Your task to perform on an android device: turn on the 12-hour format for clock Image 0: 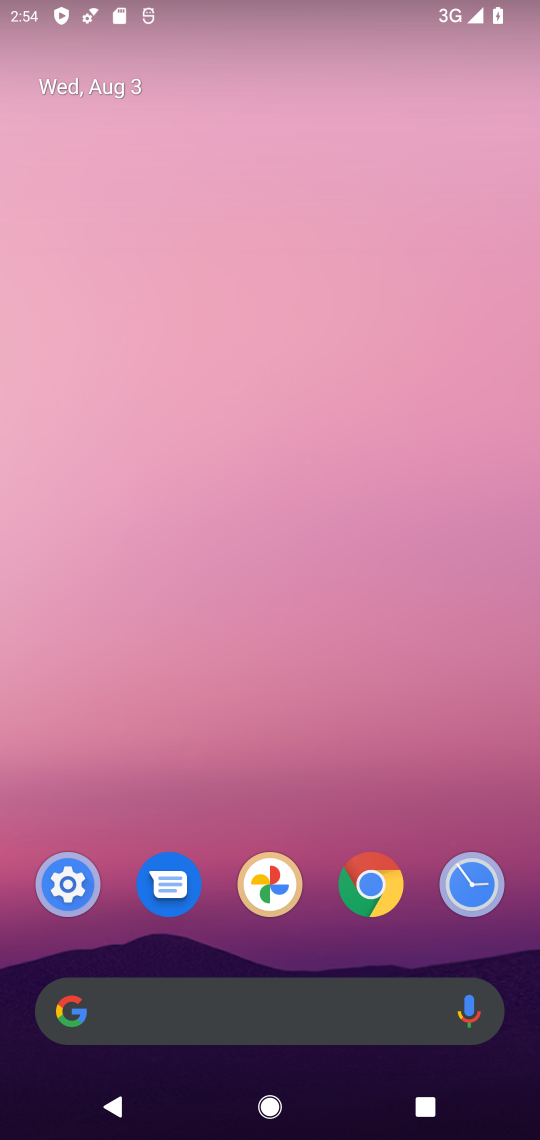
Step 0: click (474, 912)
Your task to perform on an android device: turn on the 12-hour format for clock Image 1: 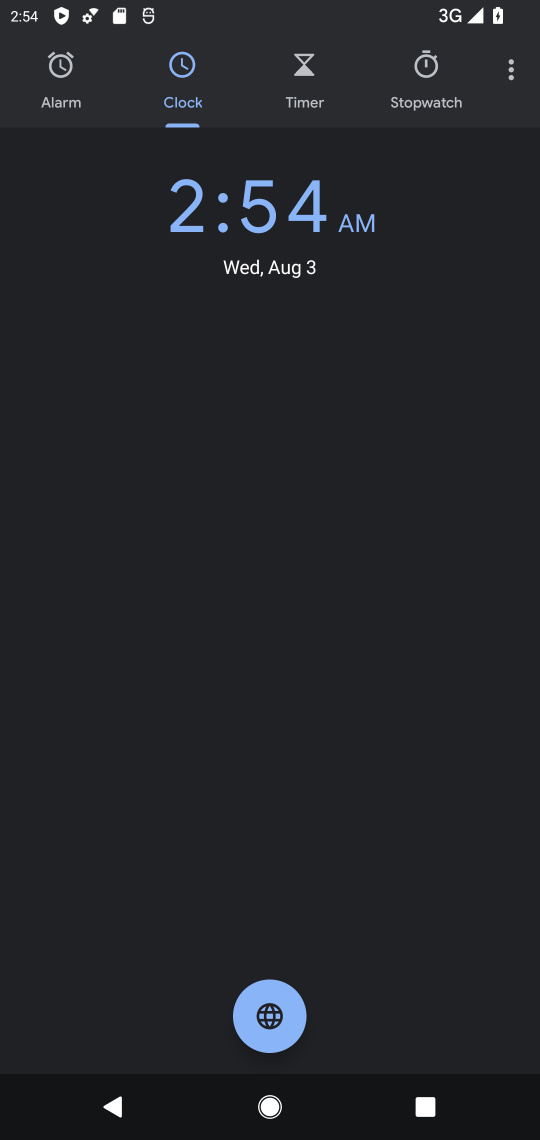
Step 1: click (502, 80)
Your task to perform on an android device: turn on the 12-hour format for clock Image 2: 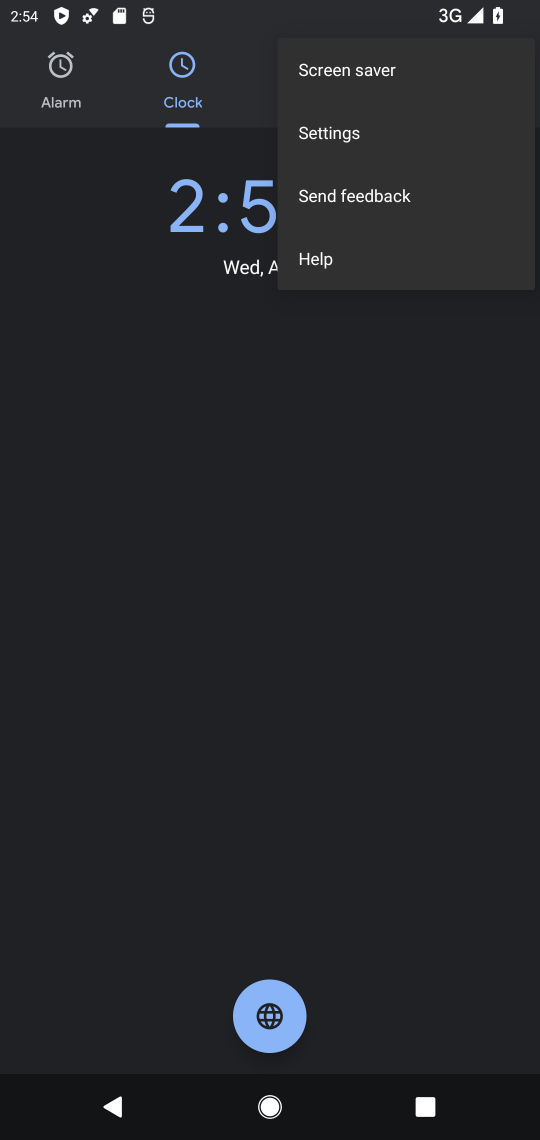
Step 2: click (353, 128)
Your task to perform on an android device: turn on the 12-hour format for clock Image 3: 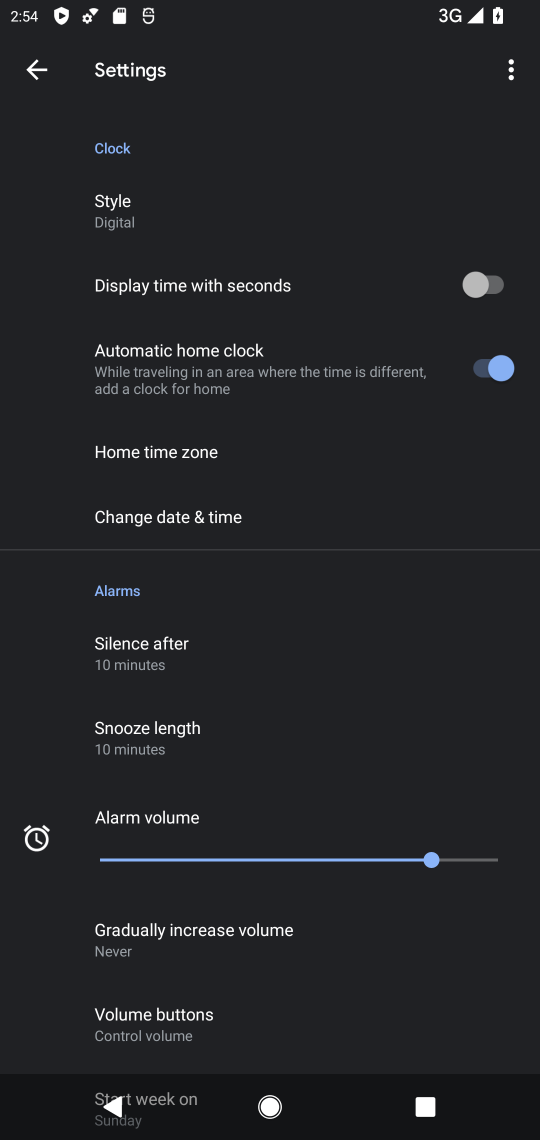
Step 3: click (186, 531)
Your task to perform on an android device: turn on the 12-hour format for clock Image 4: 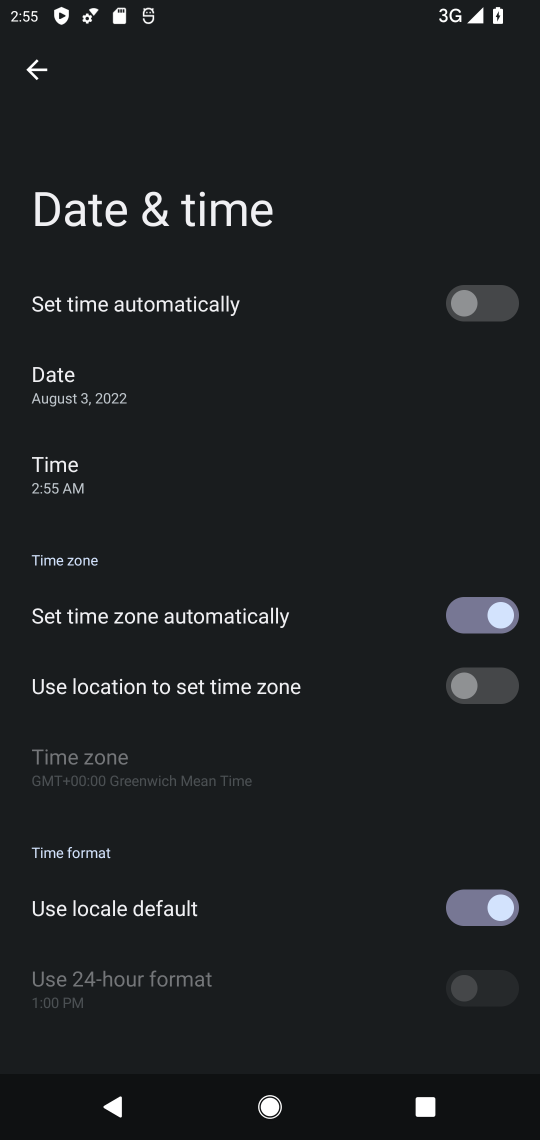
Step 4: click (535, 920)
Your task to perform on an android device: turn on the 12-hour format for clock Image 5: 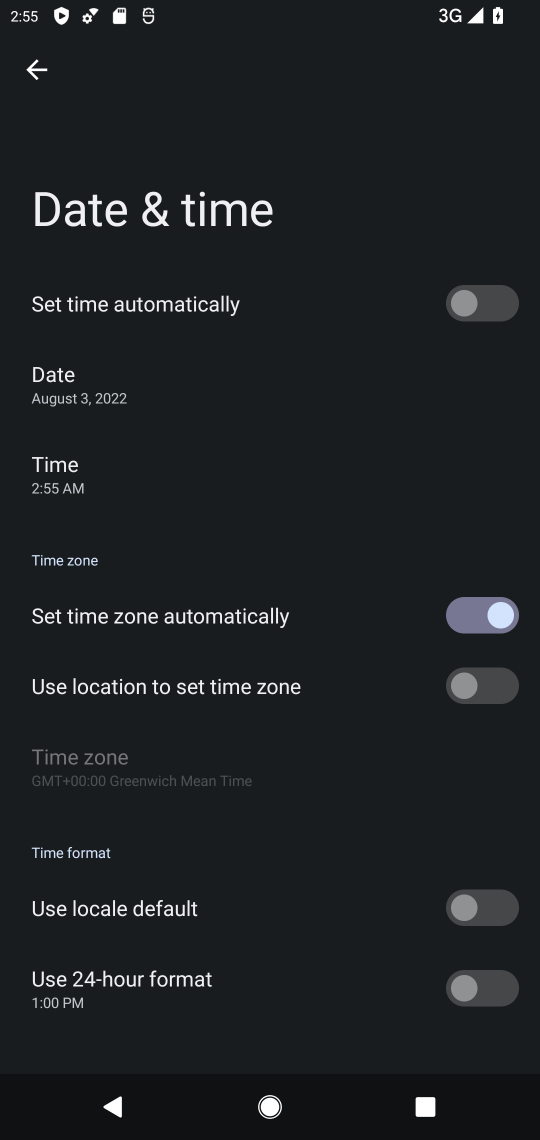
Step 5: click (495, 1004)
Your task to perform on an android device: turn on the 12-hour format for clock Image 6: 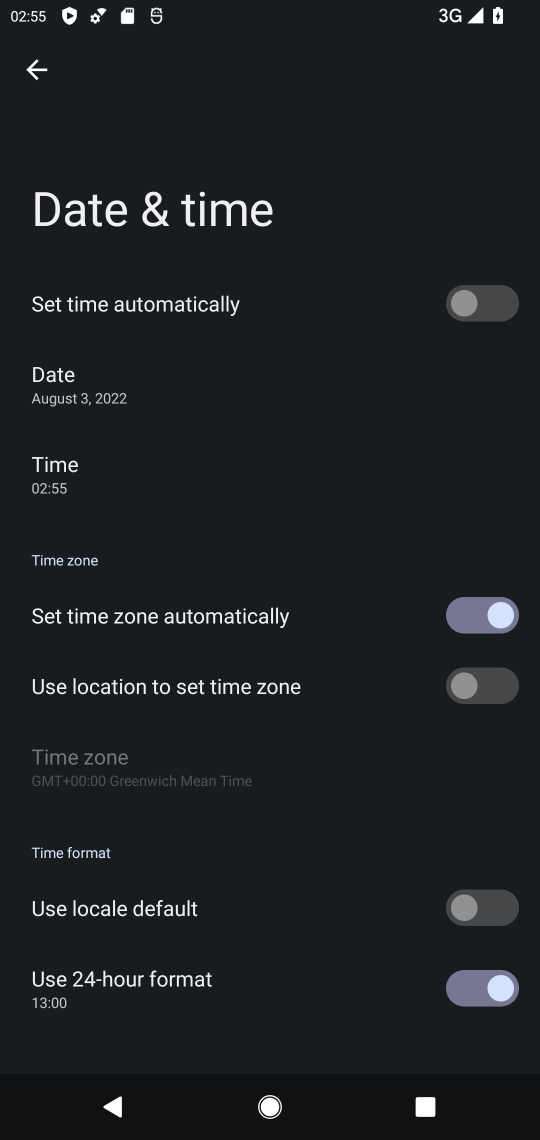
Step 6: click (438, 1018)
Your task to perform on an android device: turn on the 12-hour format for clock Image 7: 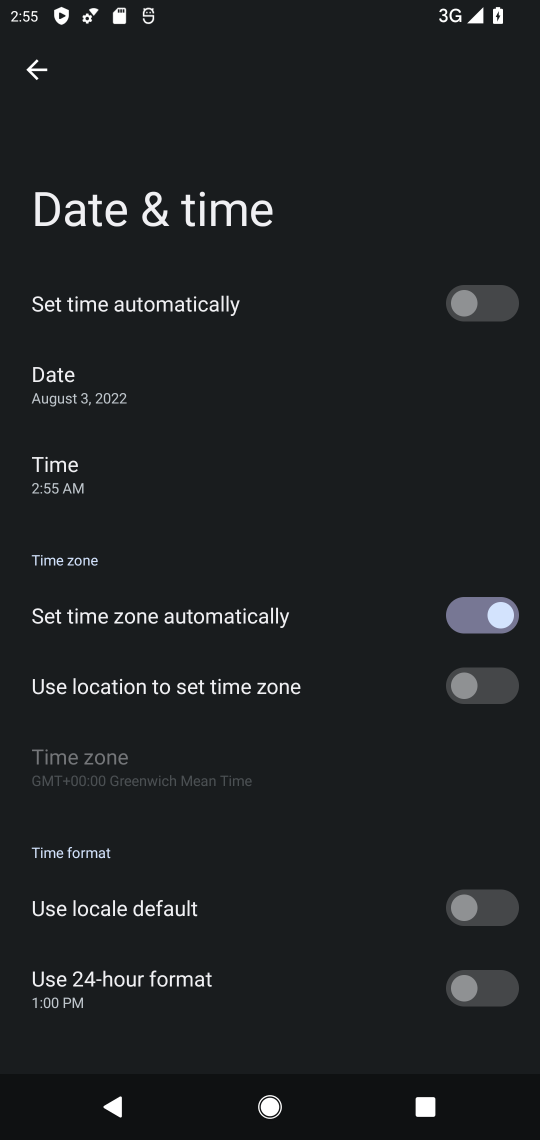
Step 7: task complete